Your task to perform on an android device: Open calendar and show me the second week of next month Image 0: 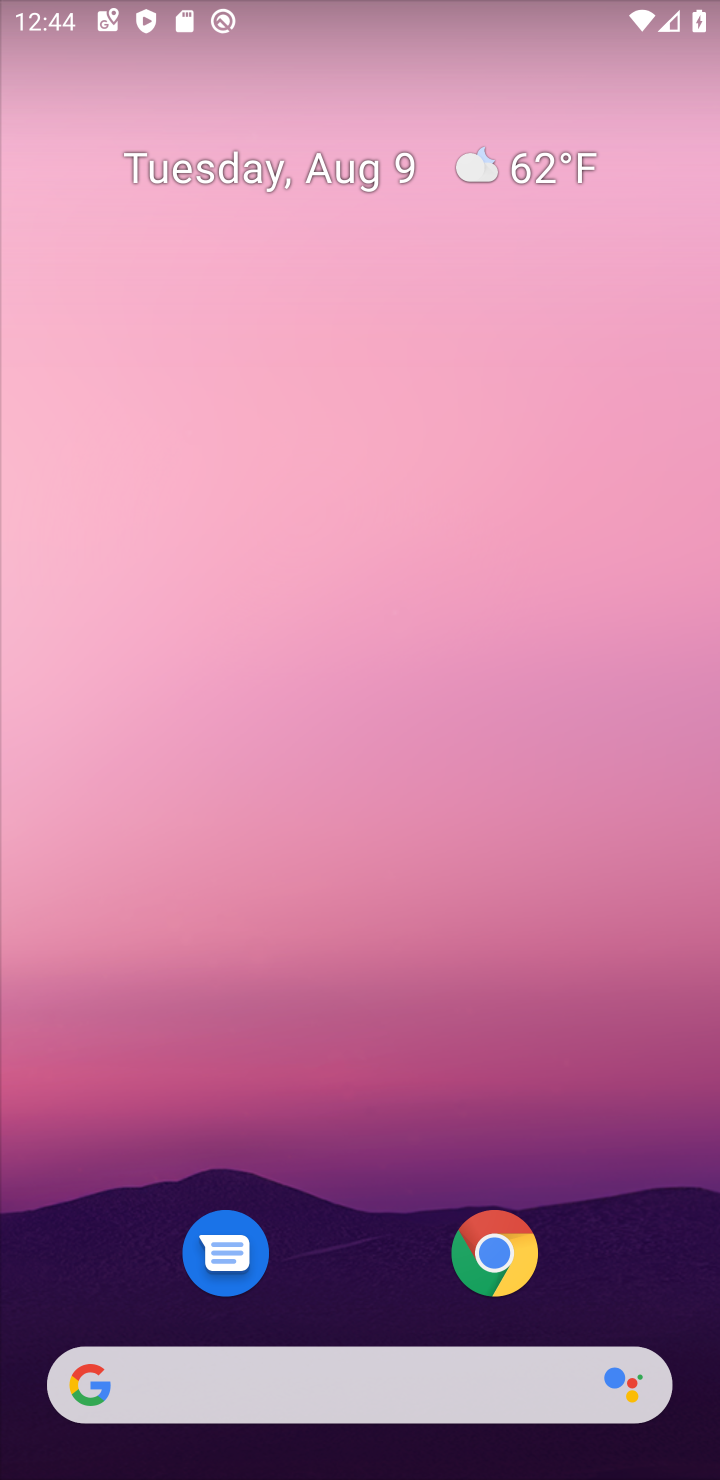
Step 0: drag from (645, 1214) to (341, 52)
Your task to perform on an android device: Open calendar and show me the second week of next month Image 1: 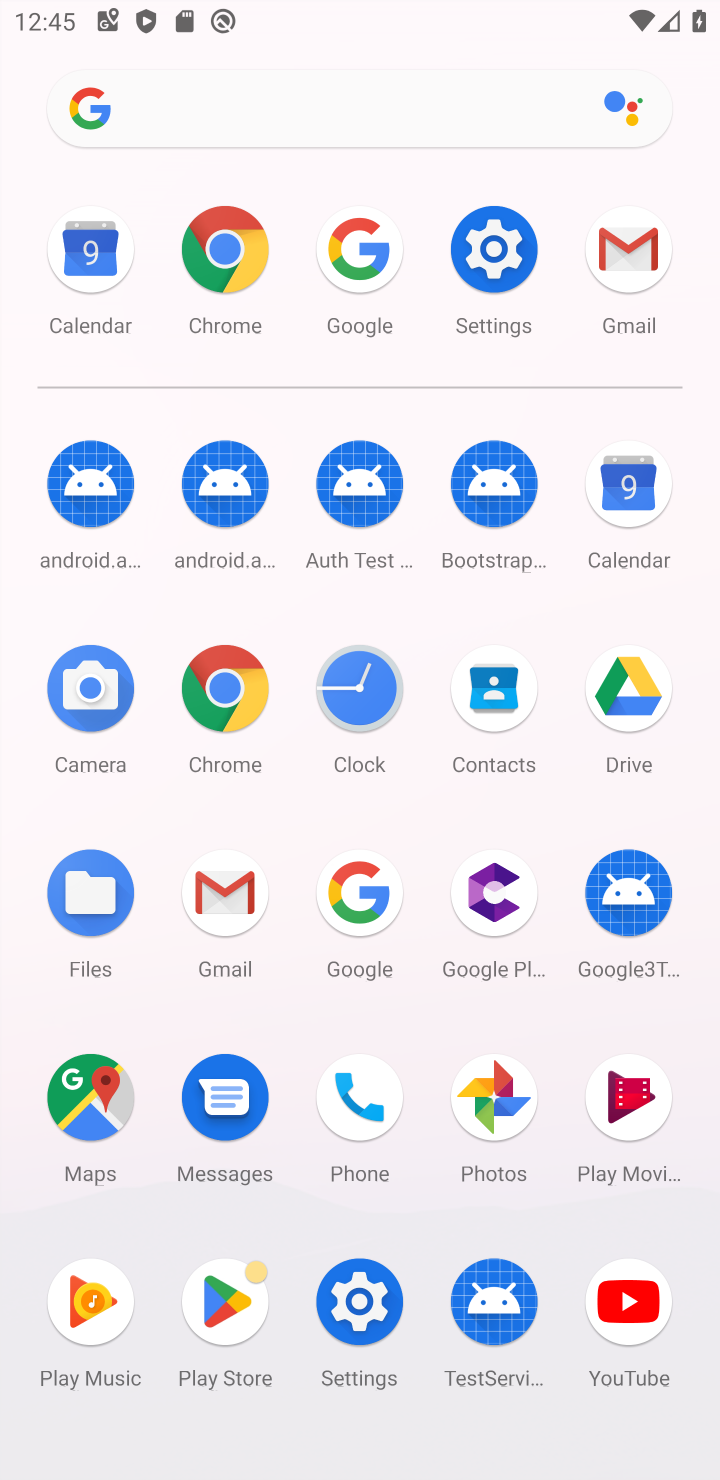
Step 1: click (609, 496)
Your task to perform on an android device: Open calendar and show me the second week of next month Image 2: 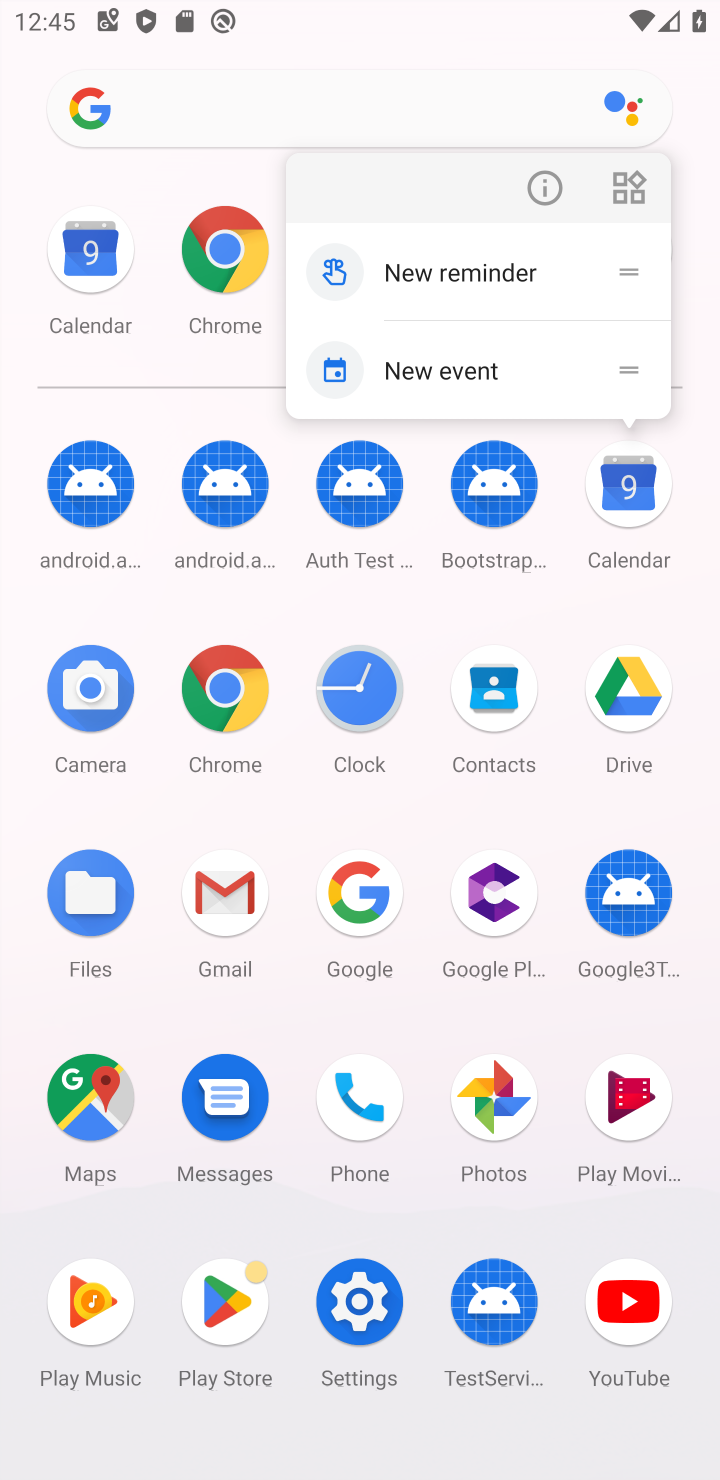
Step 2: click (611, 494)
Your task to perform on an android device: Open calendar and show me the second week of next month Image 3: 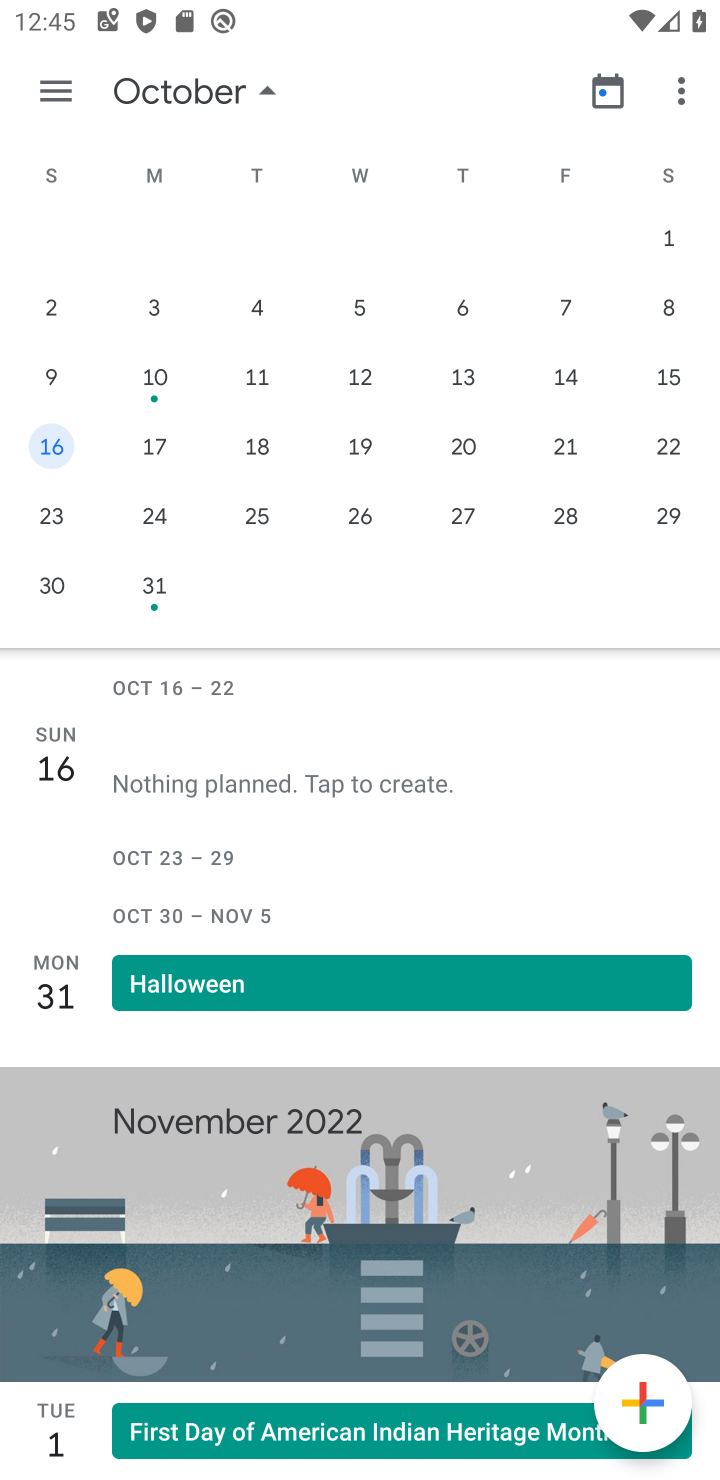
Step 3: drag from (673, 350) to (93, 463)
Your task to perform on an android device: Open calendar and show me the second week of next month Image 4: 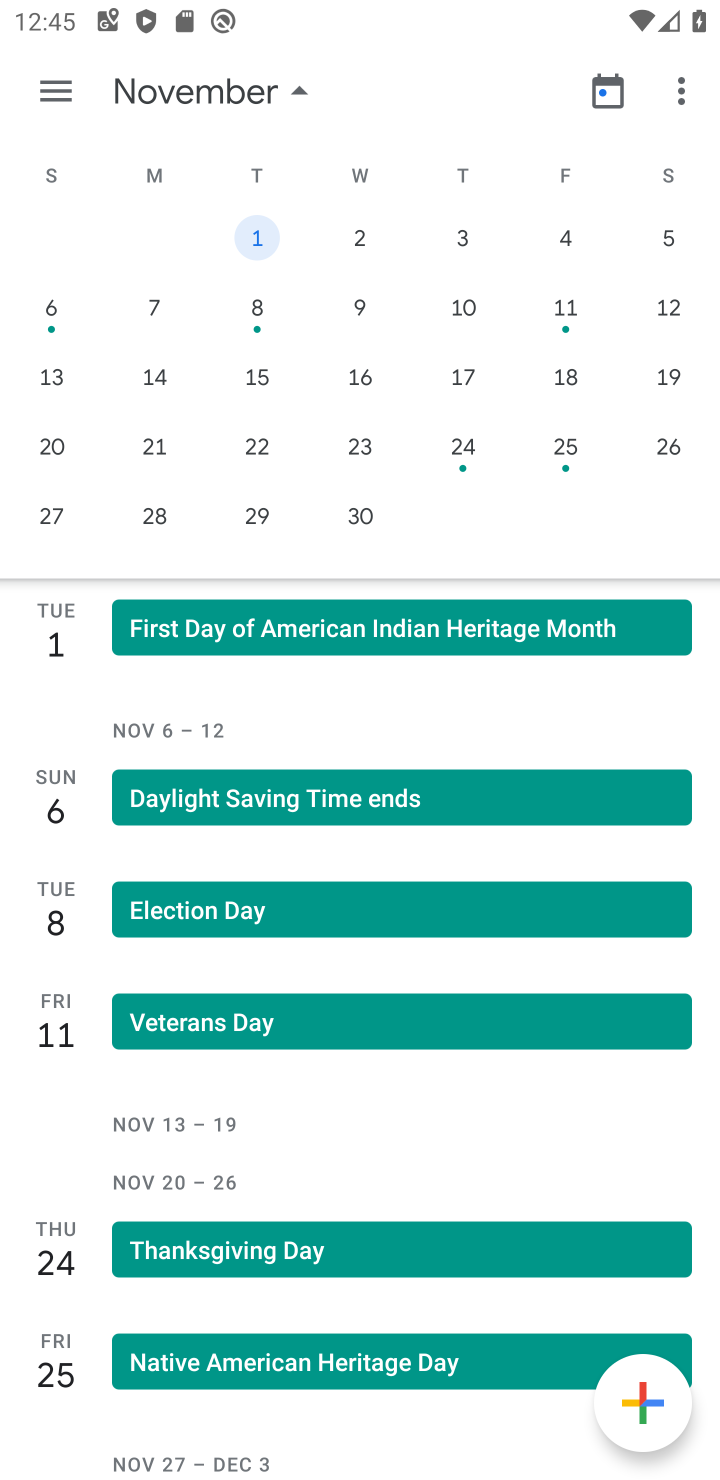
Step 4: click (47, 378)
Your task to perform on an android device: Open calendar and show me the second week of next month Image 5: 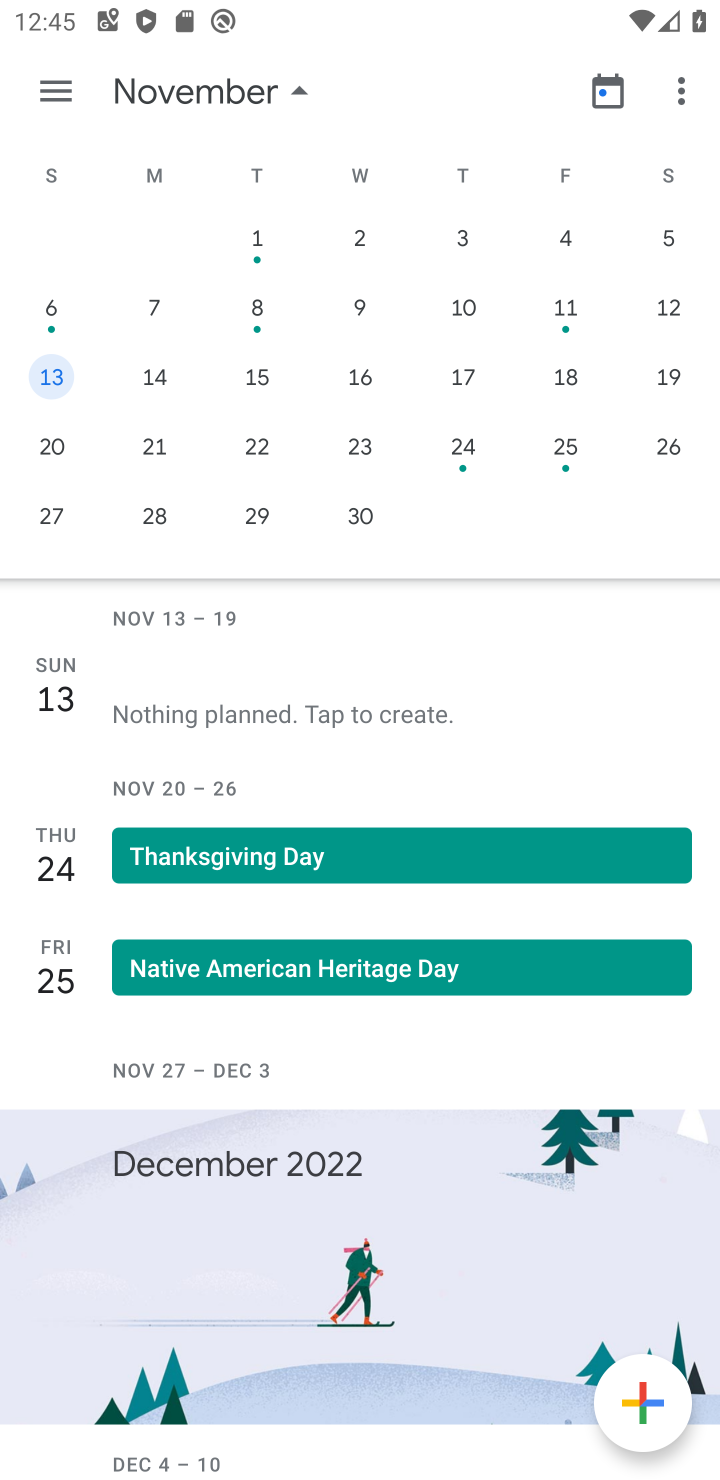
Step 5: task complete